Your task to perform on an android device: toggle data saver in the chrome app Image 0: 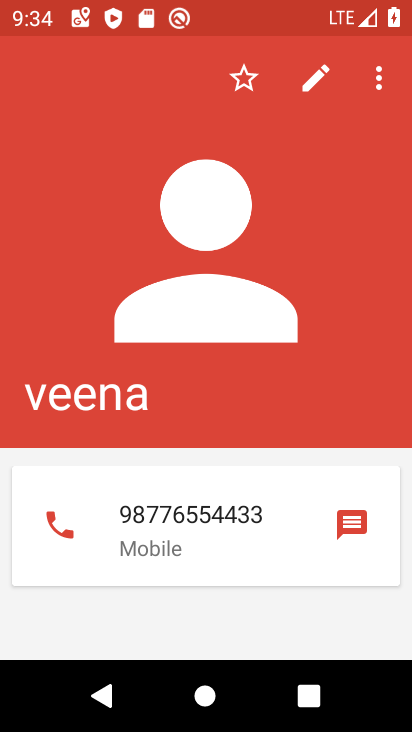
Step 0: press home button
Your task to perform on an android device: toggle data saver in the chrome app Image 1: 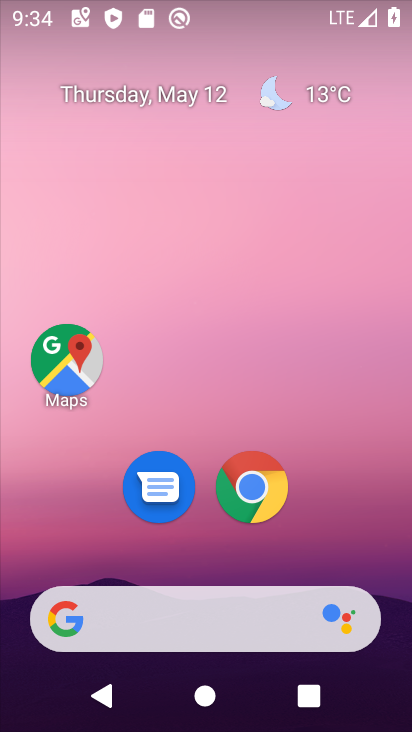
Step 1: click (237, 494)
Your task to perform on an android device: toggle data saver in the chrome app Image 2: 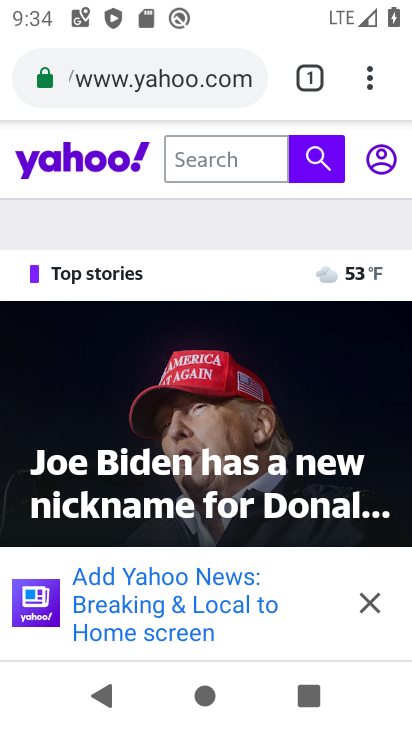
Step 2: click (371, 73)
Your task to perform on an android device: toggle data saver in the chrome app Image 3: 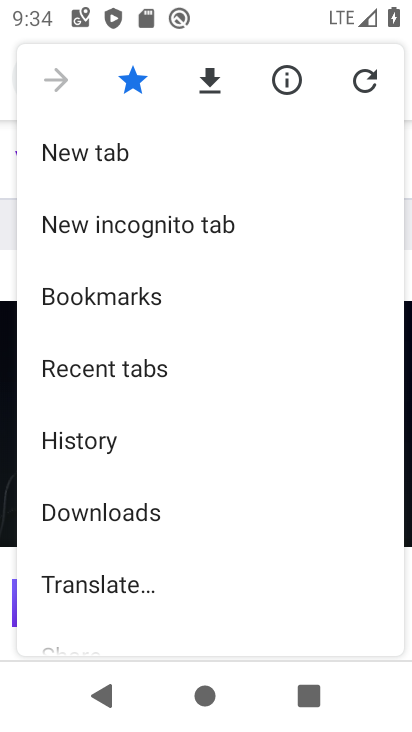
Step 3: drag from (182, 513) to (224, 171)
Your task to perform on an android device: toggle data saver in the chrome app Image 4: 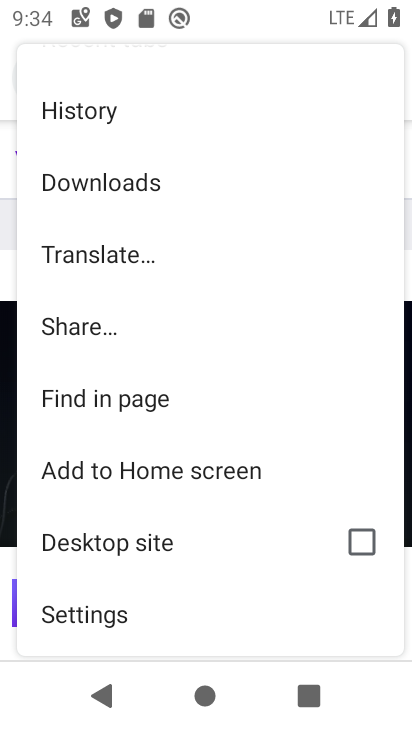
Step 4: drag from (254, 561) to (251, 203)
Your task to perform on an android device: toggle data saver in the chrome app Image 5: 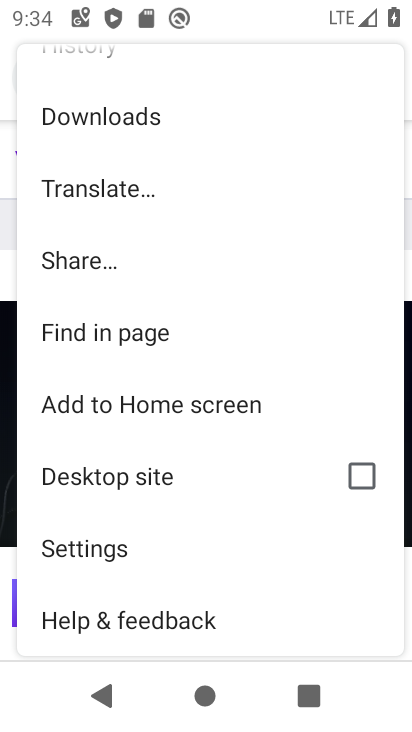
Step 5: click (76, 550)
Your task to perform on an android device: toggle data saver in the chrome app Image 6: 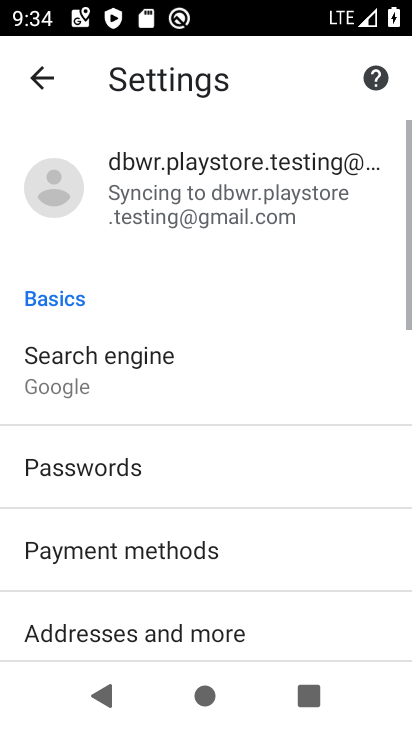
Step 6: drag from (155, 550) to (166, 16)
Your task to perform on an android device: toggle data saver in the chrome app Image 7: 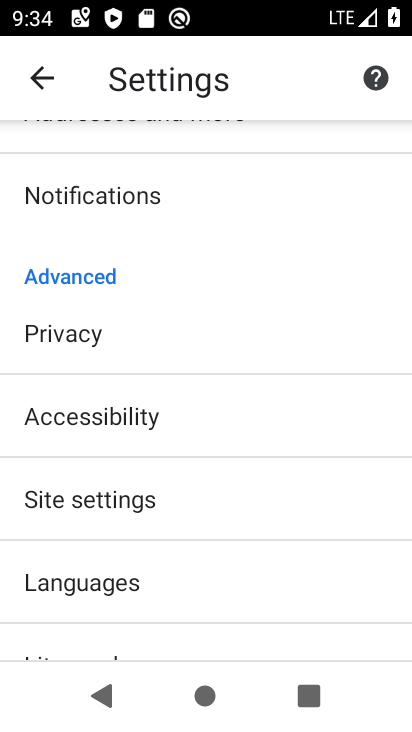
Step 7: drag from (124, 559) to (138, 236)
Your task to perform on an android device: toggle data saver in the chrome app Image 8: 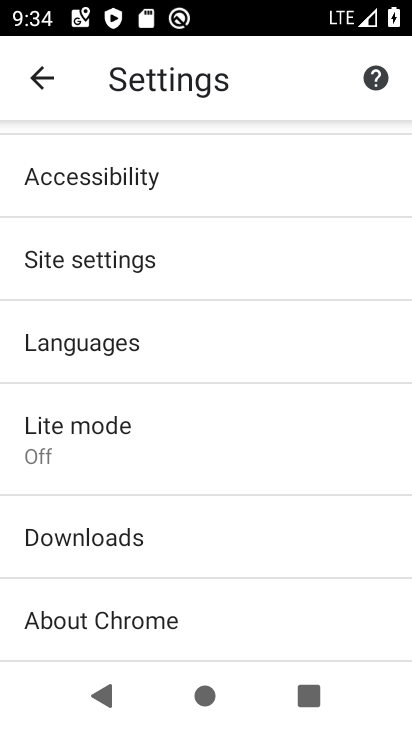
Step 8: click (78, 443)
Your task to perform on an android device: toggle data saver in the chrome app Image 9: 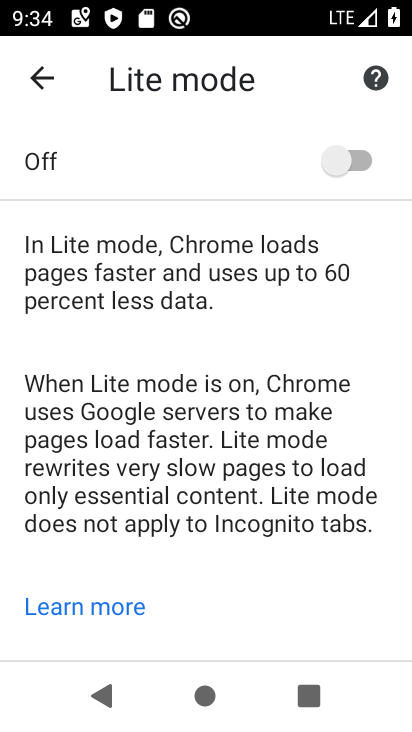
Step 9: click (332, 162)
Your task to perform on an android device: toggle data saver in the chrome app Image 10: 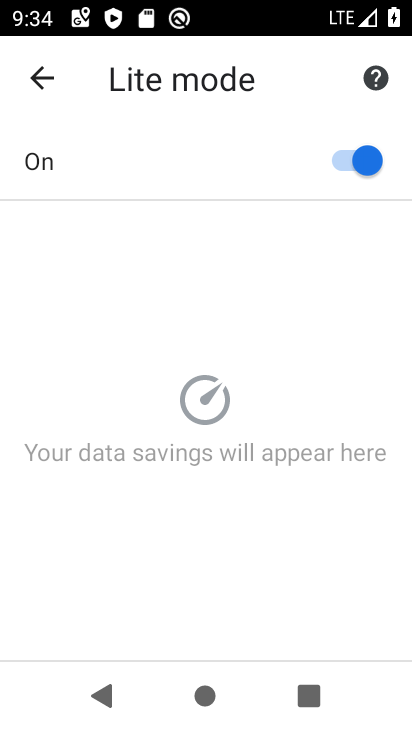
Step 10: task complete